Your task to perform on an android device: Open CNN.com Image 0: 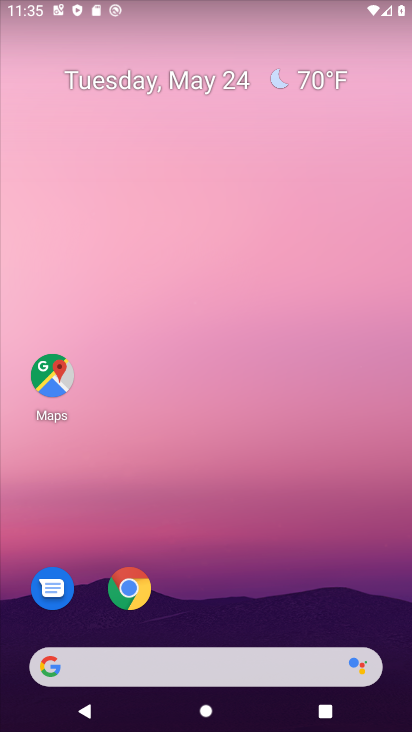
Step 0: press home button
Your task to perform on an android device: Open CNN.com Image 1: 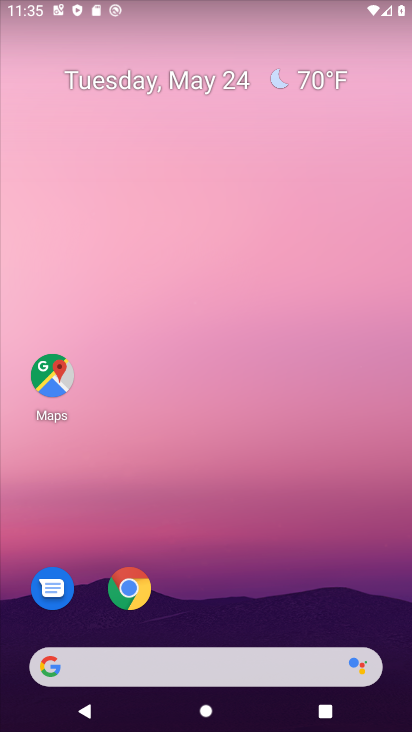
Step 1: click (125, 584)
Your task to perform on an android device: Open CNN.com Image 2: 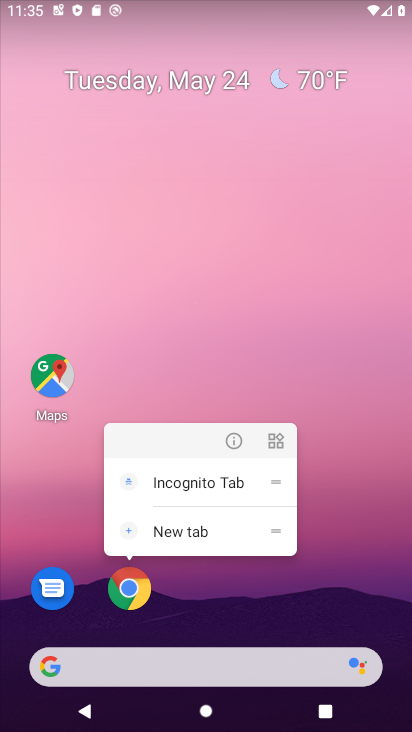
Step 2: click (129, 578)
Your task to perform on an android device: Open CNN.com Image 3: 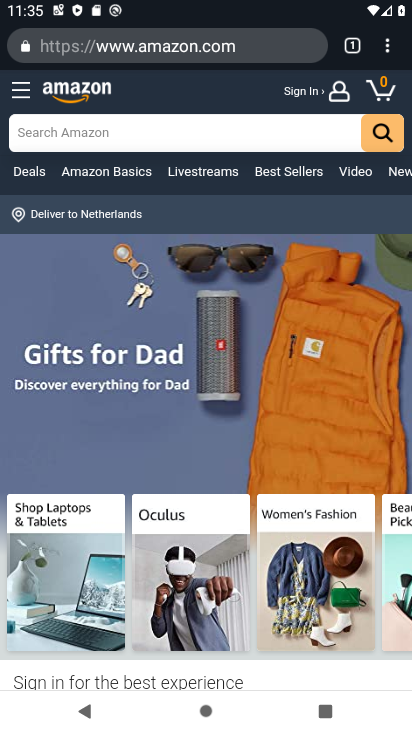
Step 3: click (352, 43)
Your task to perform on an android device: Open CNN.com Image 4: 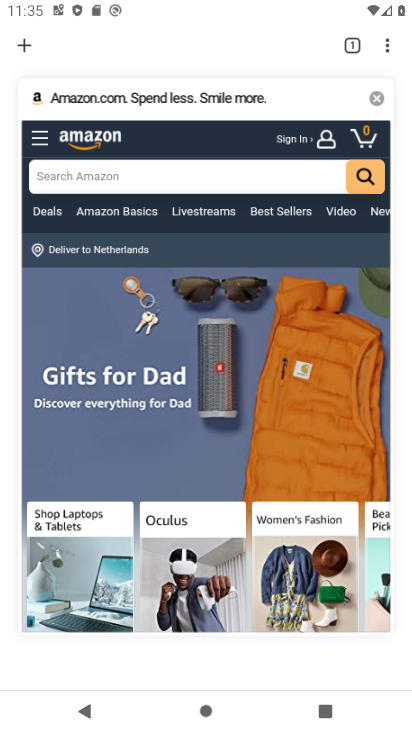
Step 4: click (373, 95)
Your task to perform on an android device: Open CNN.com Image 5: 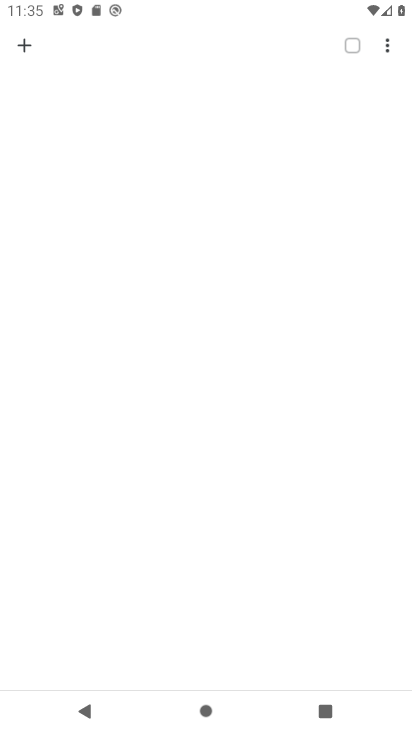
Step 5: click (26, 45)
Your task to perform on an android device: Open CNN.com Image 6: 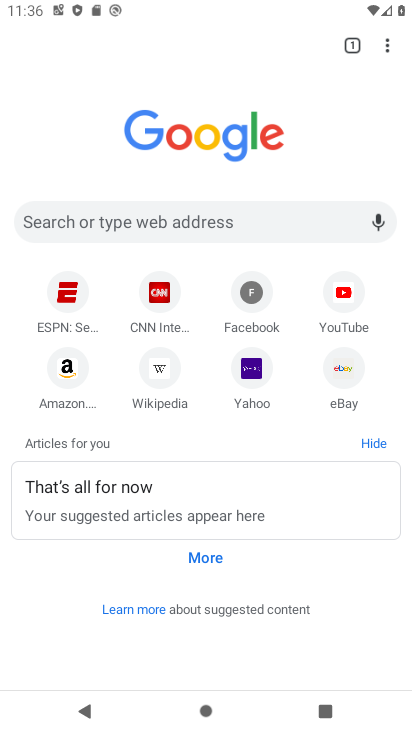
Step 6: click (157, 285)
Your task to perform on an android device: Open CNN.com Image 7: 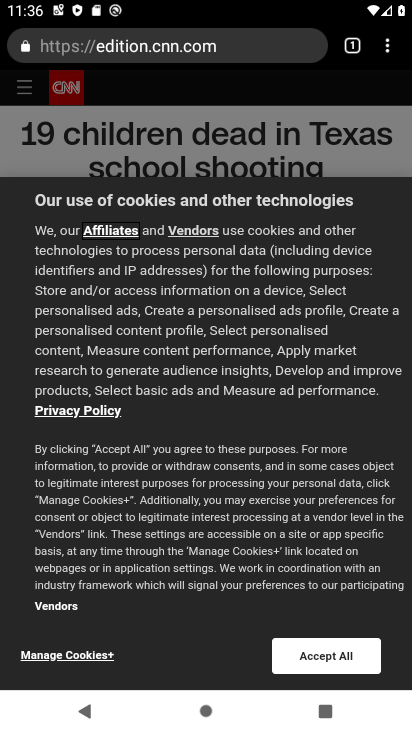
Step 7: click (326, 652)
Your task to perform on an android device: Open CNN.com Image 8: 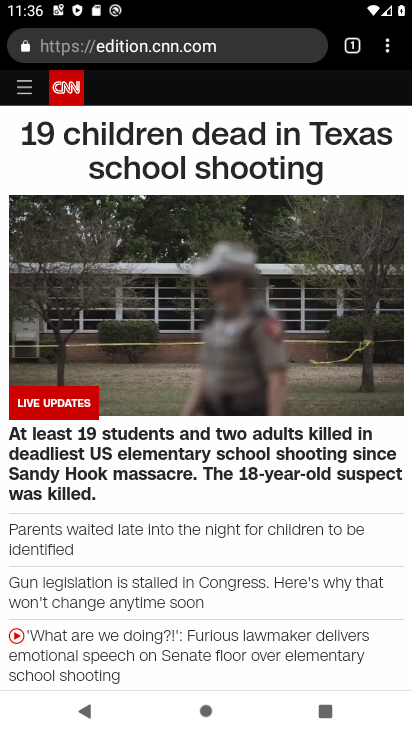
Step 8: task complete